Your task to perform on an android device: Open Google Image 0: 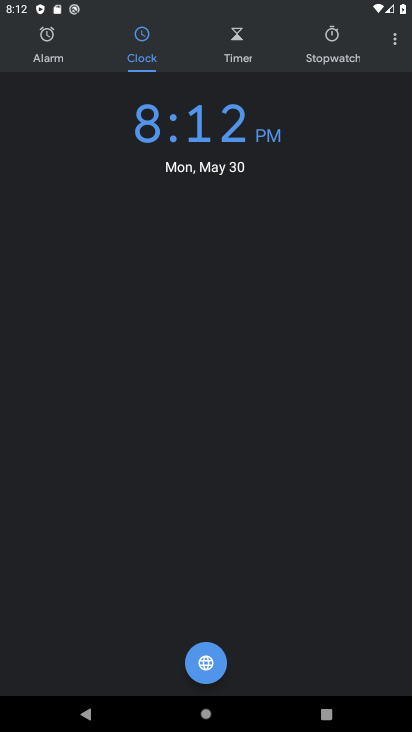
Step 0: press home button
Your task to perform on an android device: Open Google Image 1: 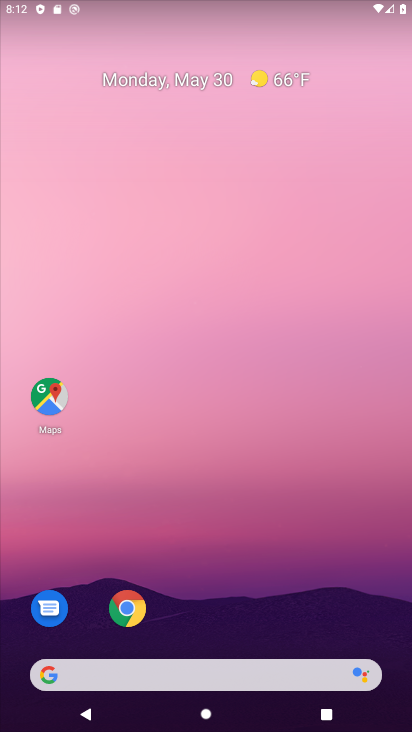
Step 1: drag from (241, 718) to (254, 439)
Your task to perform on an android device: Open Google Image 2: 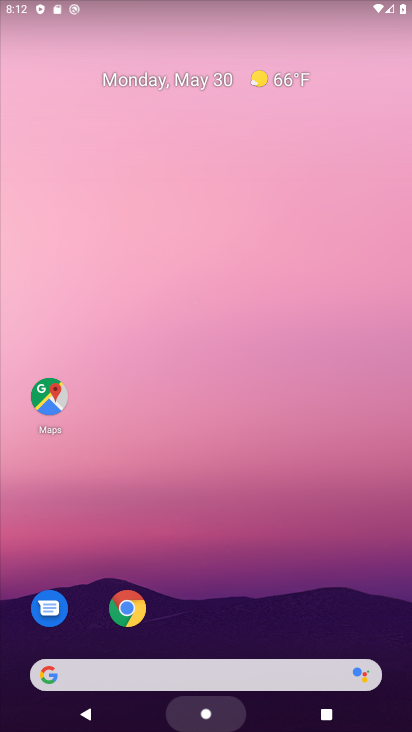
Step 2: click (250, 118)
Your task to perform on an android device: Open Google Image 3: 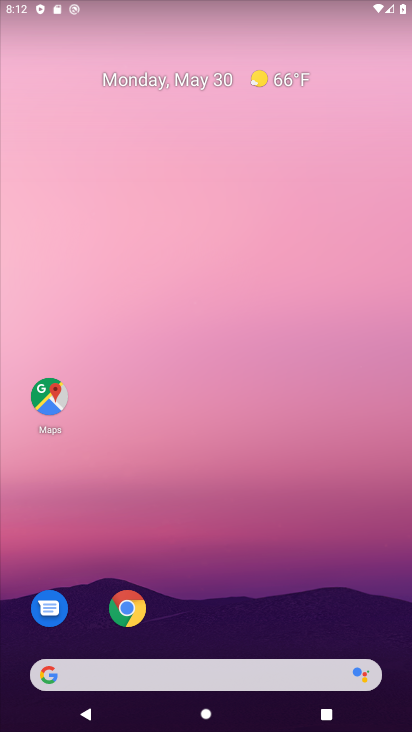
Step 3: drag from (233, 681) to (237, 115)
Your task to perform on an android device: Open Google Image 4: 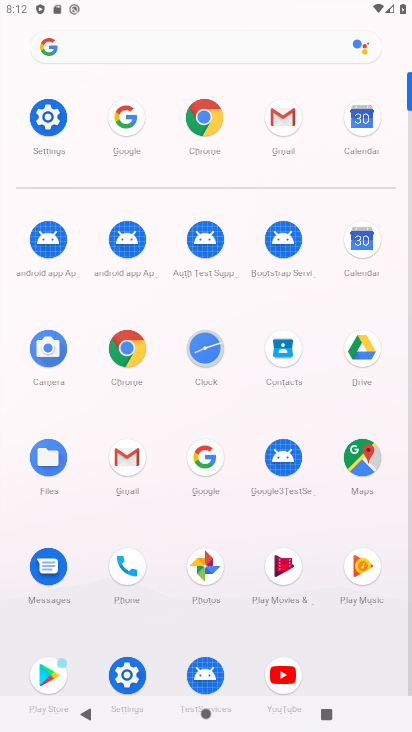
Step 4: click (203, 456)
Your task to perform on an android device: Open Google Image 5: 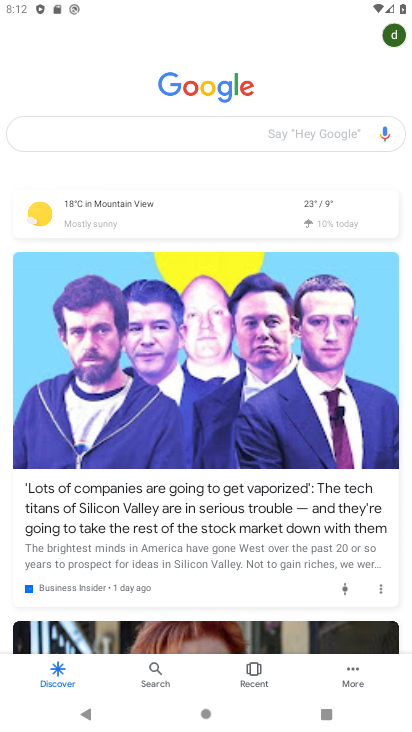
Step 5: task complete